Your task to perform on an android device: Go to calendar. Show me events next week Image 0: 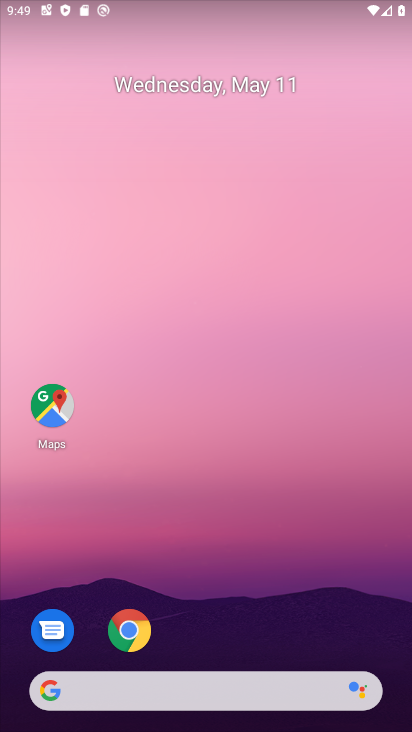
Step 0: drag from (221, 579) to (270, 98)
Your task to perform on an android device: Go to calendar. Show me events next week Image 1: 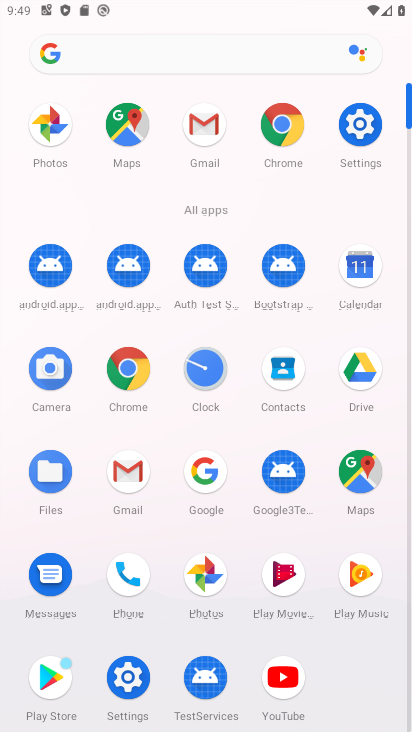
Step 1: click (360, 272)
Your task to perform on an android device: Go to calendar. Show me events next week Image 2: 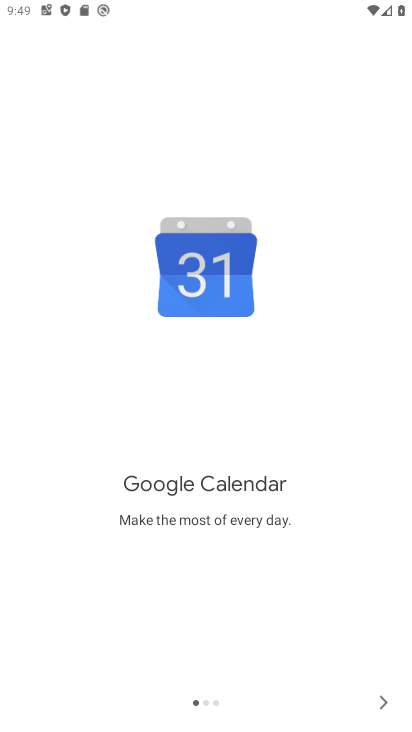
Step 2: click (383, 703)
Your task to perform on an android device: Go to calendar. Show me events next week Image 3: 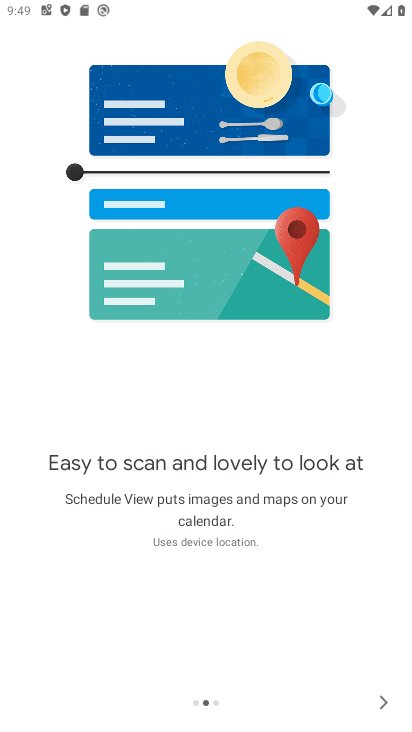
Step 3: click (383, 703)
Your task to perform on an android device: Go to calendar. Show me events next week Image 4: 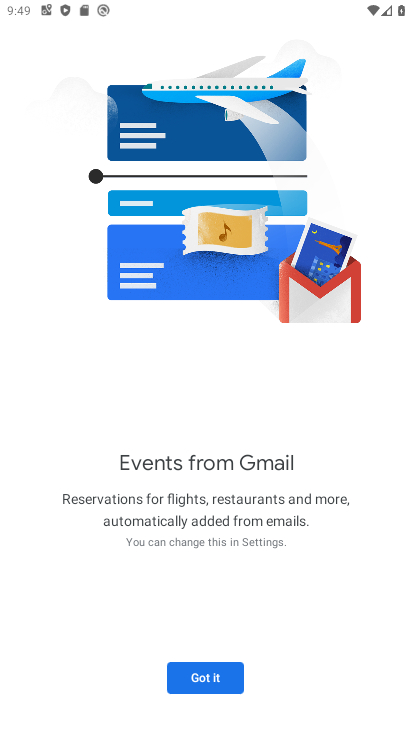
Step 4: click (198, 680)
Your task to perform on an android device: Go to calendar. Show me events next week Image 5: 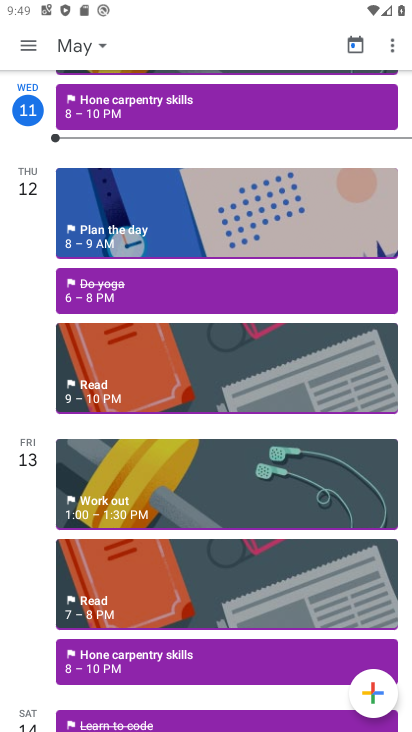
Step 5: click (38, 44)
Your task to perform on an android device: Go to calendar. Show me events next week Image 6: 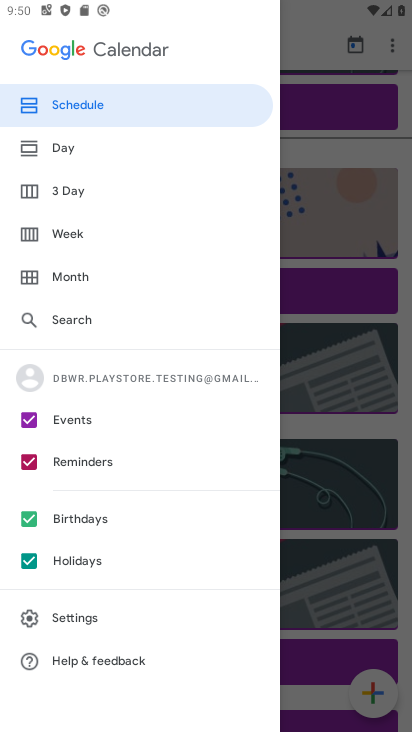
Step 6: click (64, 100)
Your task to perform on an android device: Go to calendar. Show me events next week Image 7: 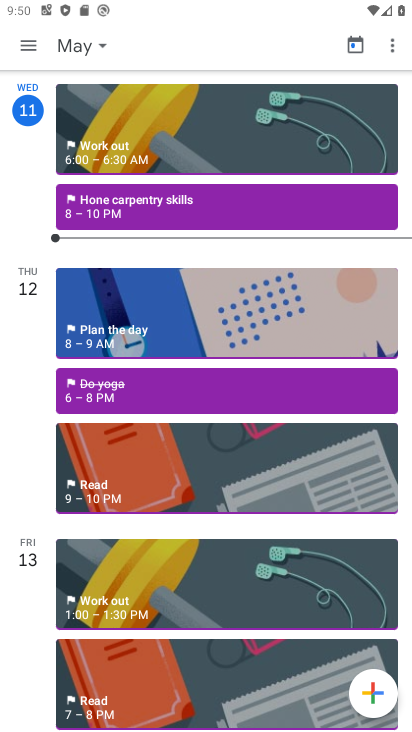
Step 7: task complete